Your task to perform on an android device: toggle notifications settings in the gmail app Image 0: 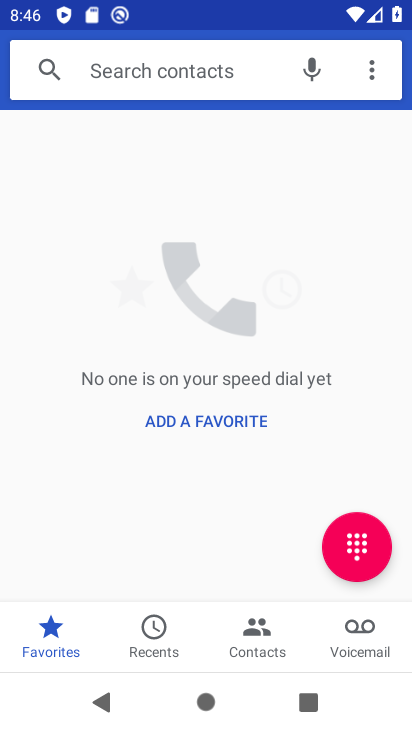
Step 0: press home button
Your task to perform on an android device: toggle notifications settings in the gmail app Image 1: 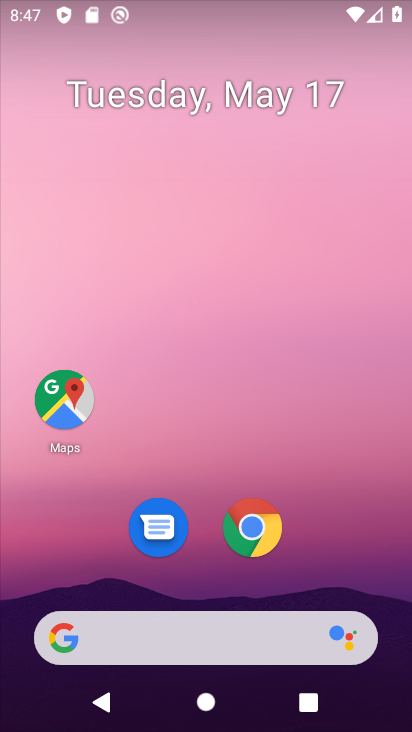
Step 1: drag from (322, 566) to (321, 19)
Your task to perform on an android device: toggle notifications settings in the gmail app Image 2: 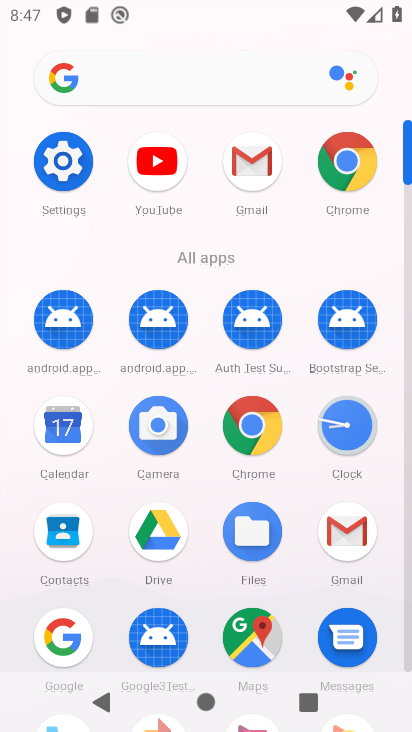
Step 2: click (222, 198)
Your task to perform on an android device: toggle notifications settings in the gmail app Image 3: 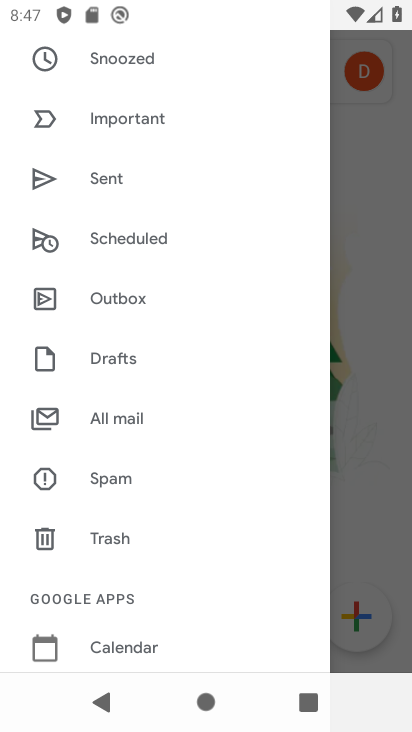
Step 3: drag from (129, 562) to (131, 310)
Your task to perform on an android device: toggle notifications settings in the gmail app Image 4: 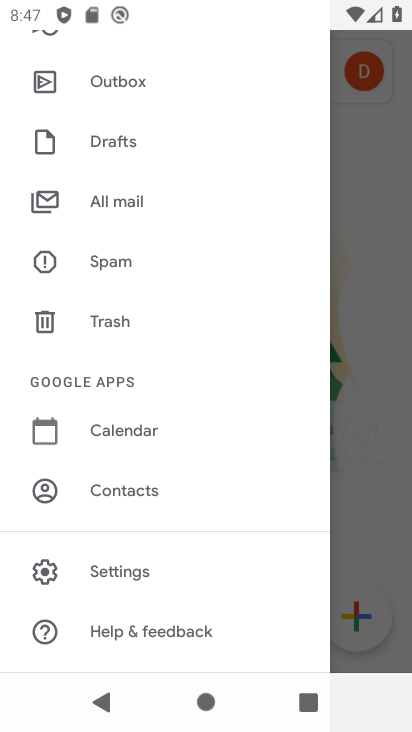
Step 4: click (151, 551)
Your task to perform on an android device: toggle notifications settings in the gmail app Image 5: 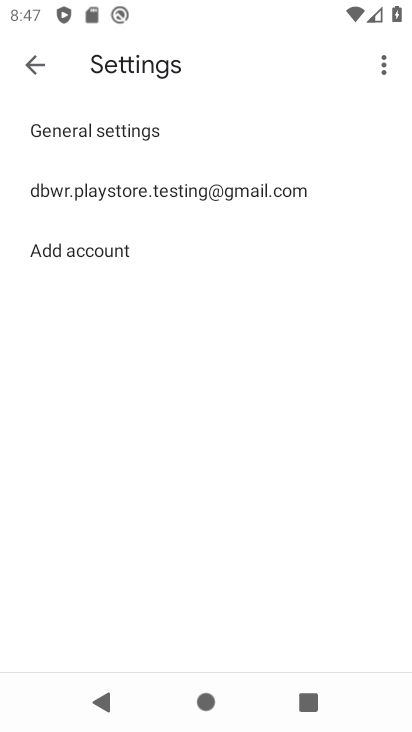
Step 5: click (172, 121)
Your task to perform on an android device: toggle notifications settings in the gmail app Image 6: 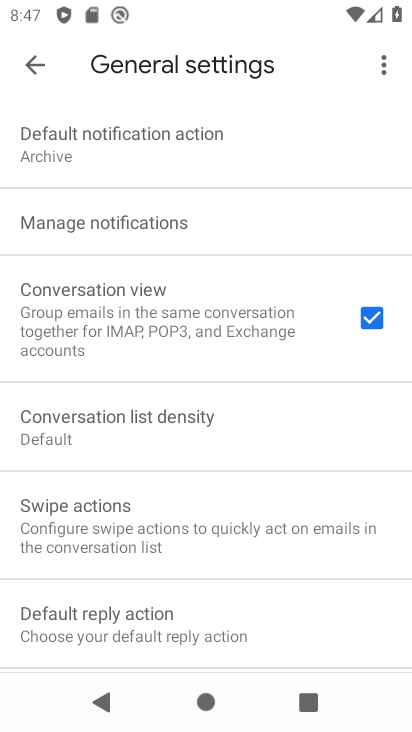
Step 6: click (131, 230)
Your task to perform on an android device: toggle notifications settings in the gmail app Image 7: 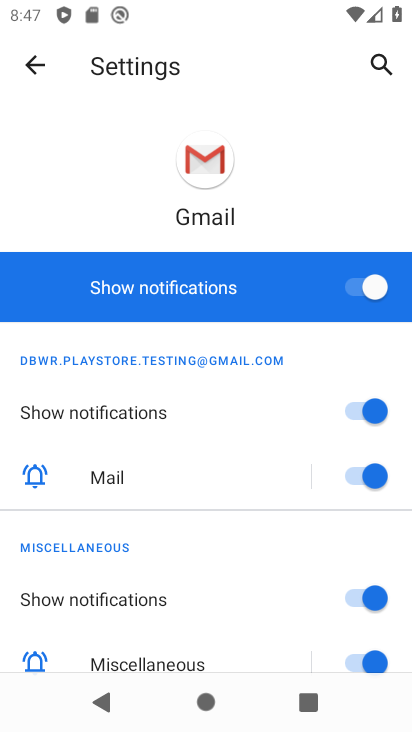
Step 7: click (335, 290)
Your task to perform on an android device: toggle notifications settings in the gmail app Image 8: 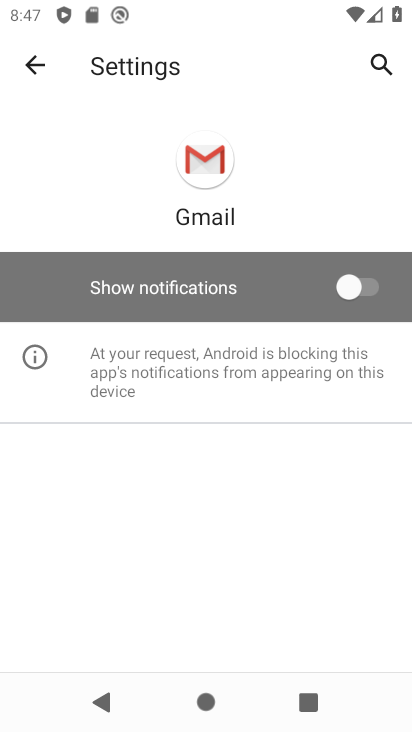
Step 8: task complete